Your task to perform on an android device: Open Amazon Image 0: 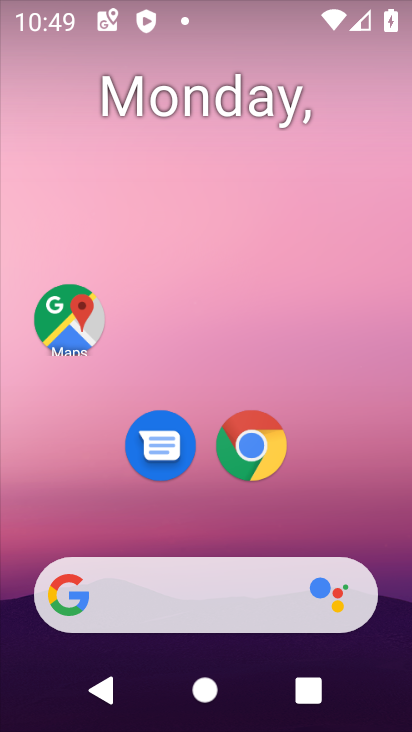
Step 0: click (250, 441)
Your task to perform on an android device: Open Amazon Image 1: 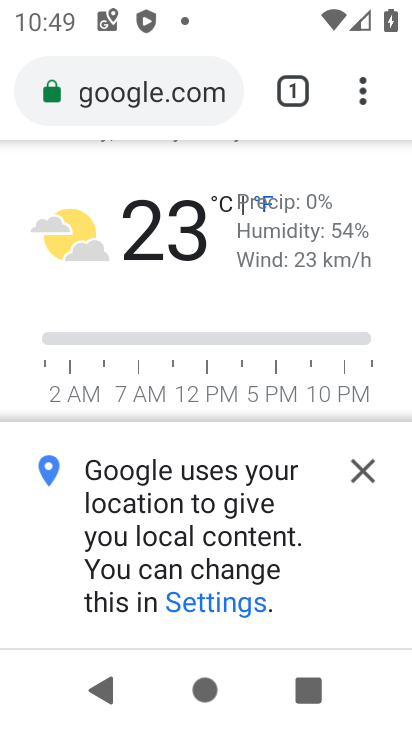
Step 1: click (199, 441)
Your task to perform on an android device: Open Amazon Image 2: 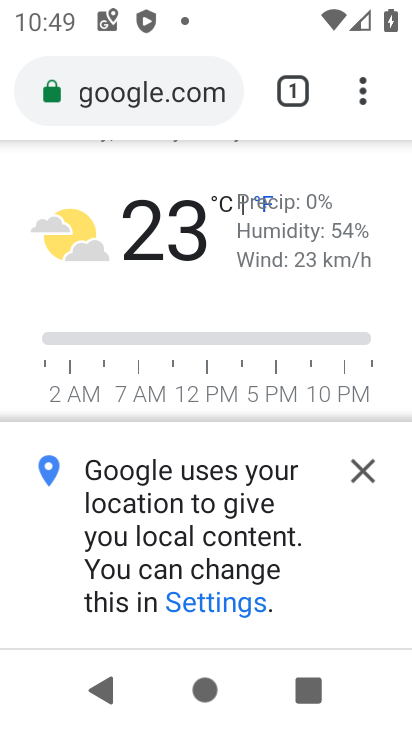
Step 2: click (193, 92)
Your task to perform on an android device: Open Amazon Image 3: 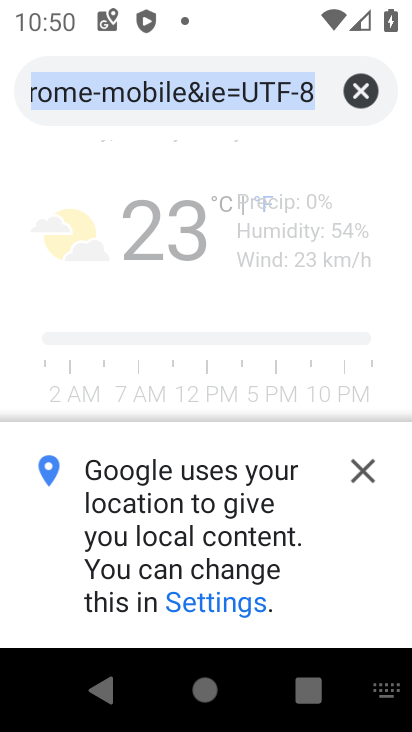
Step 3: type "Amazon"
Your task to perform on an android device: Open Amazon Image 4: 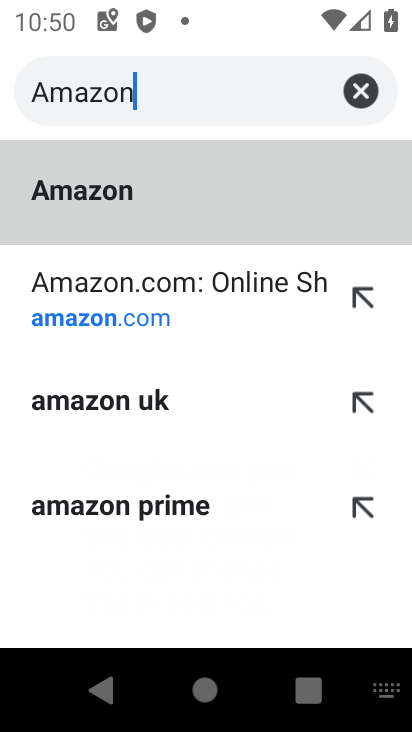
Step 4: click (235, 217)
Your task to perform on an android device: Open Amazon Image 5: 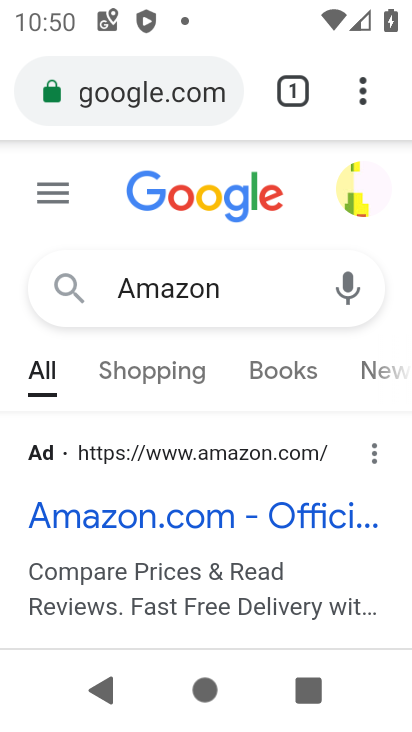
Step 5: task complete